Your task to perform on an android device: read, delete, or share a saved page in the chrome app Image 0: 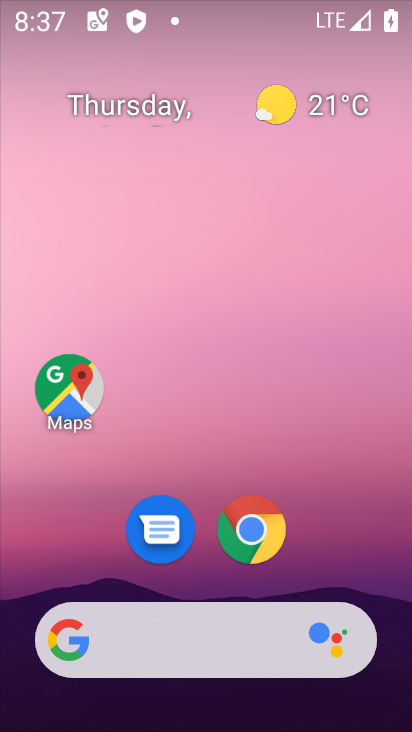
Step 0: drag from (236, 655) to (285, 6)
Your task to perform on an android device: read, delete, or share a saved page in the chrome app Image 1: 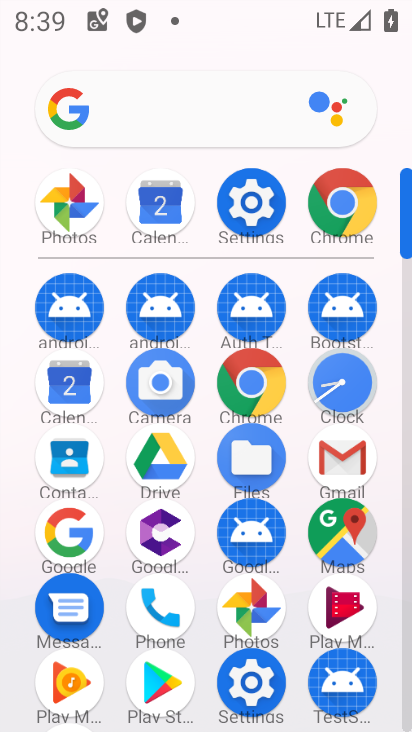
Step 1: click (340, 201)
Your task to perform on an android device: read, delete, or share a saved page in the chrome app Image 2: 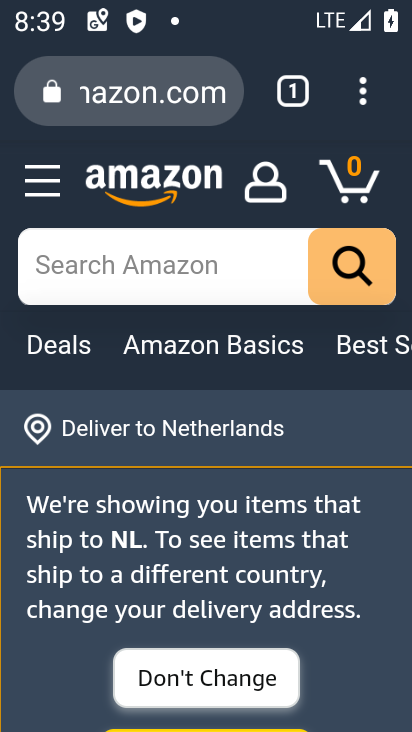
Step 2: click (366, 92)
Your task to perform on an android device: read, delete, or share a saved page in the chrome app Image 3: 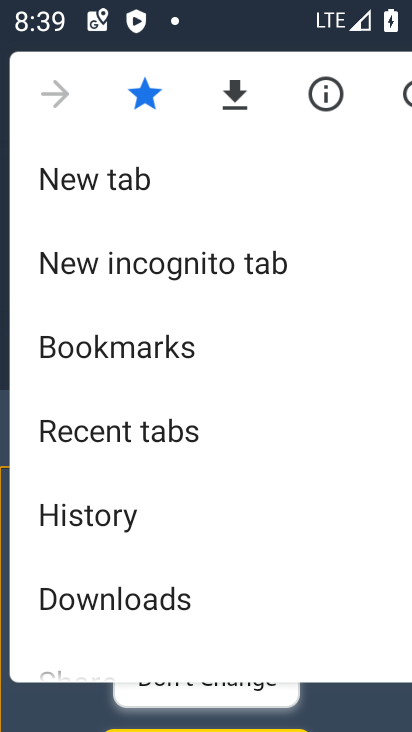
Step 3: click (156, 616)
Your task to perform on an android device: read, delete, or share a saved page in the chrome app Image 4: 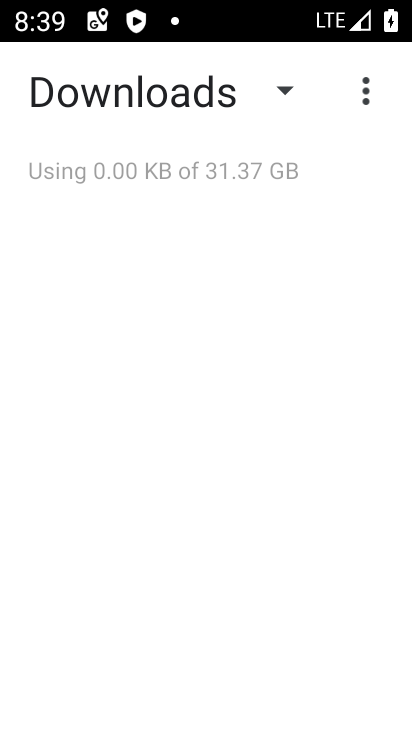
Step 4: task complete